Your task to perform on an android device: change text size in settings app Image 0: 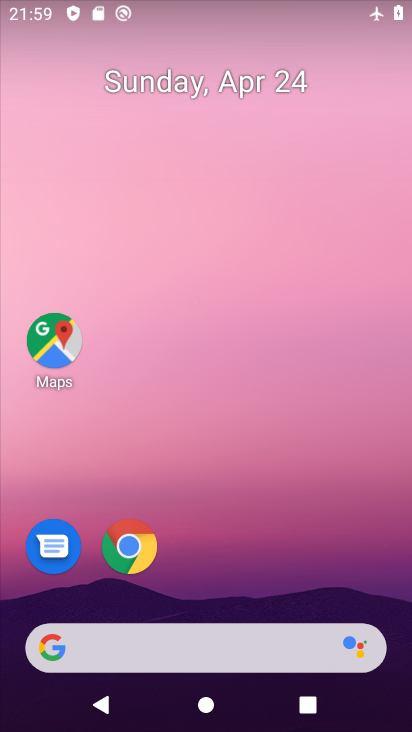
Step 0: drag from (295, 377) to (330, 217)
Your task to perform on an android device: change text size in settings app Image 1: 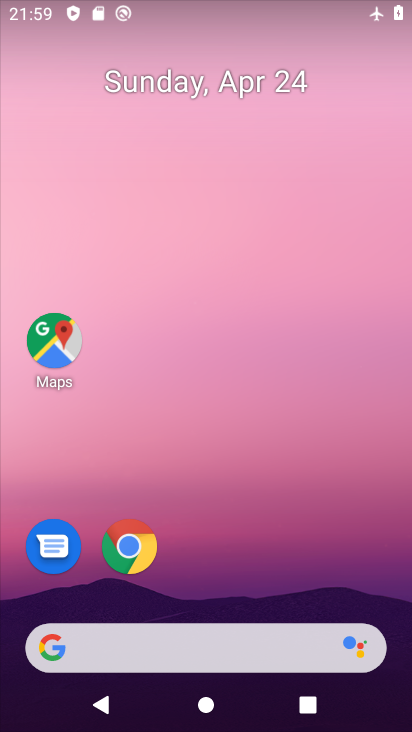
Step 1: drag from (261, 458) to (265, 206)
Your task to perform on an android device: change text size in settings app Image 2: 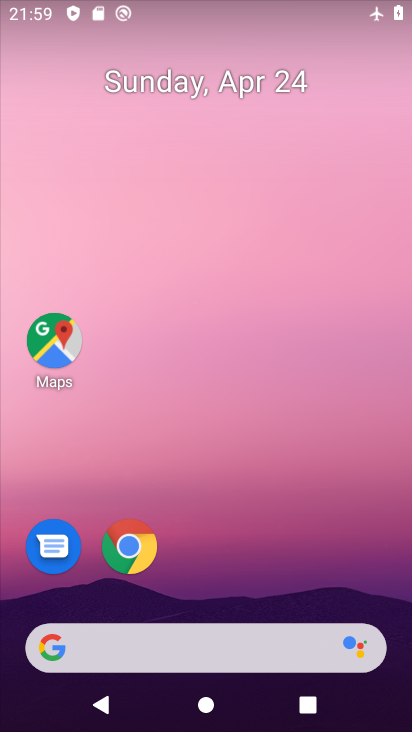
Step 2: drag from (263, 366) to (266, 183)
Your task to perform on an android device: change text size in settings app Image 3: 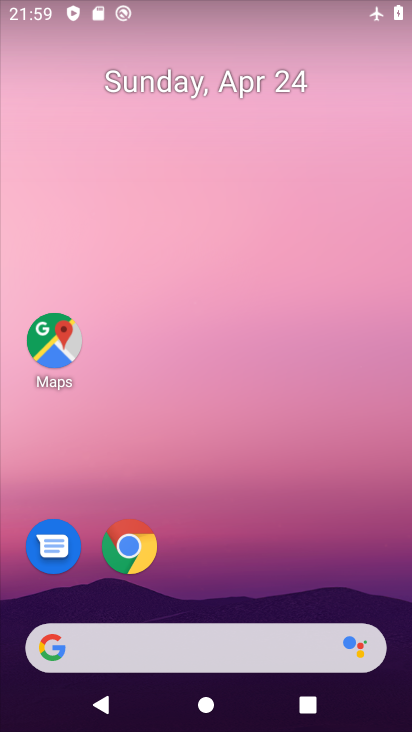
Step 3: drag from (226, 517) to (241, 121)
Your task to perform on an android device: change text size in settings app Image 4: 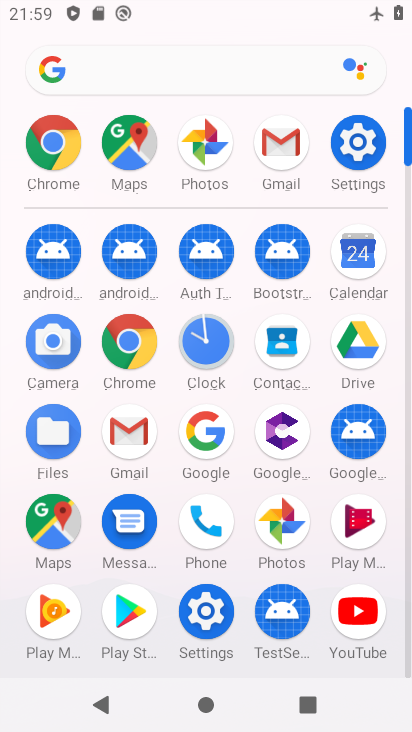
Step 4: click (354, 134)
Your task to perform on an android device: change text size in settings app Image 5: 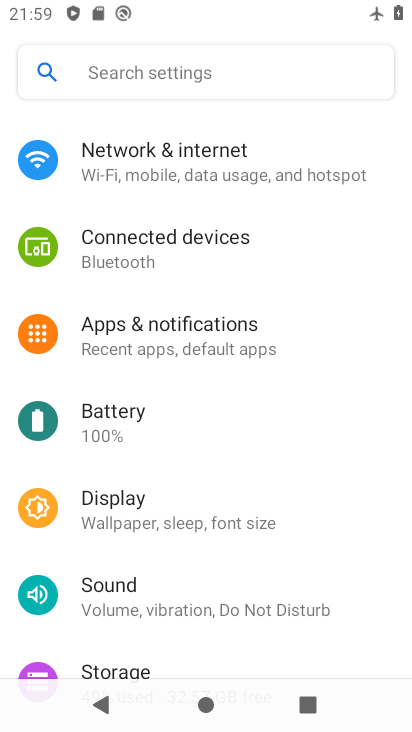
Step 5: drag from (209, 590) to (259, 229)
Your task to perform on an android device: change text size in settings app Image 6: 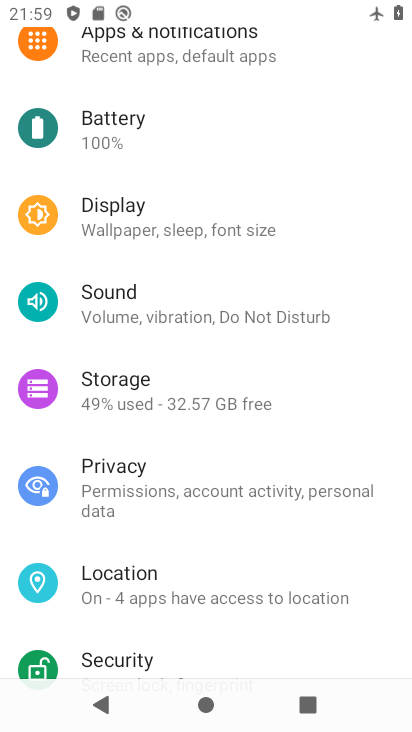
Step 6: drag from (248, 580) to (251, 197)
Your task to perform on an android device: change text size in settings app Image 7: 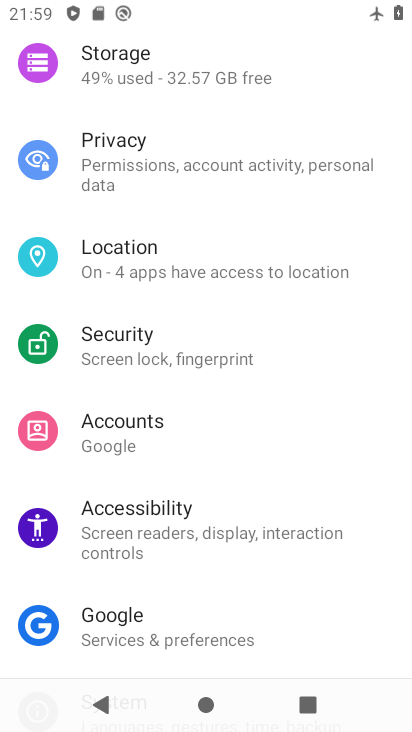
Step 7: click (177, 529)
Your task to perform on an android device: change text size in settings app Image 8: 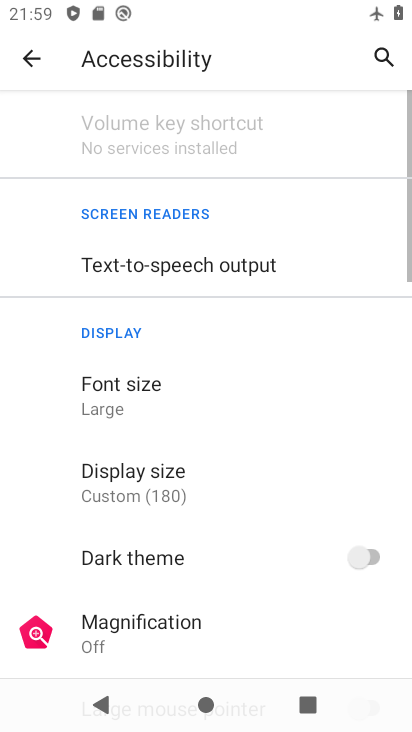
Step 8: click (148, 368)
Your task to perform on an android device: change text size in settings app Image 9: 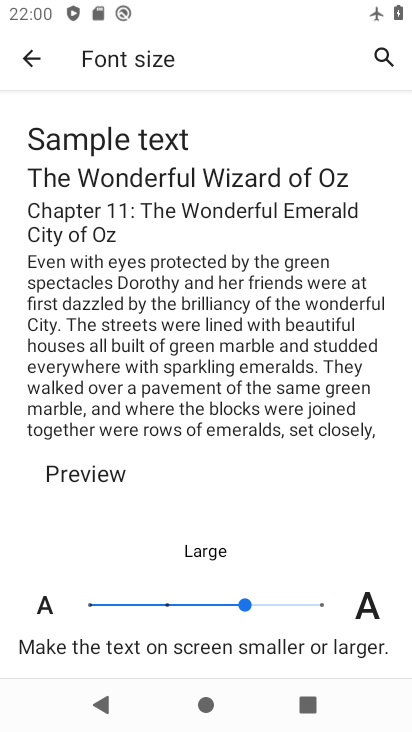
Step 9: click (165, 603)
Your task to perform on an android device: change text size in settings app Image 10: 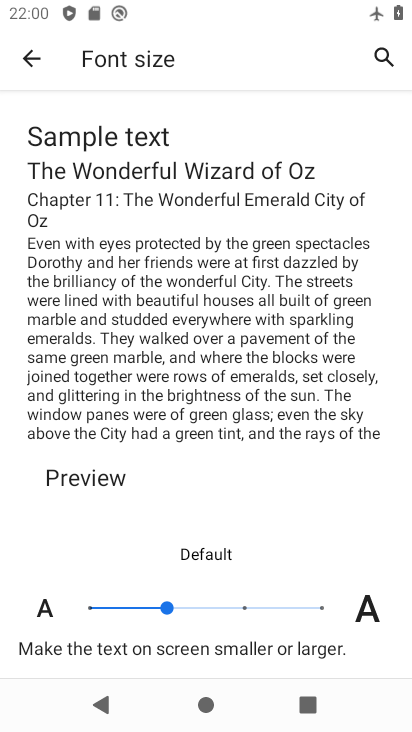
Step 10: task complete